Your task to perform on an android device: create a new album in the google photos Image 0: 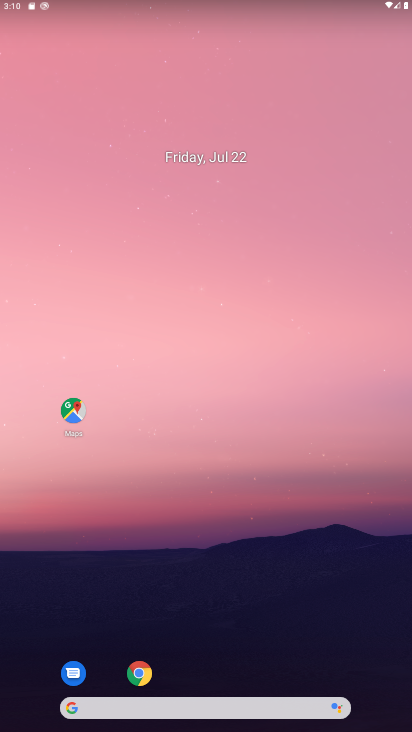
Step 0: drag from (203, 660) to (324, 142)
Your task to perform on an android device: create a new album in the google photos Image 1: 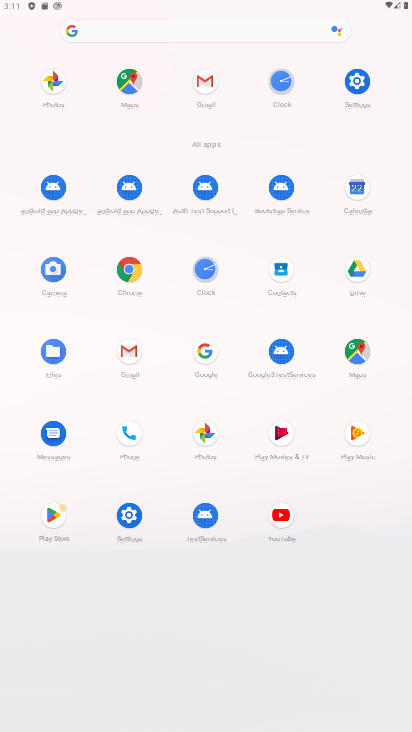
Step 1: click (209, 436)
Your task to perform on an android device: create a new album in the google photos Image 2: 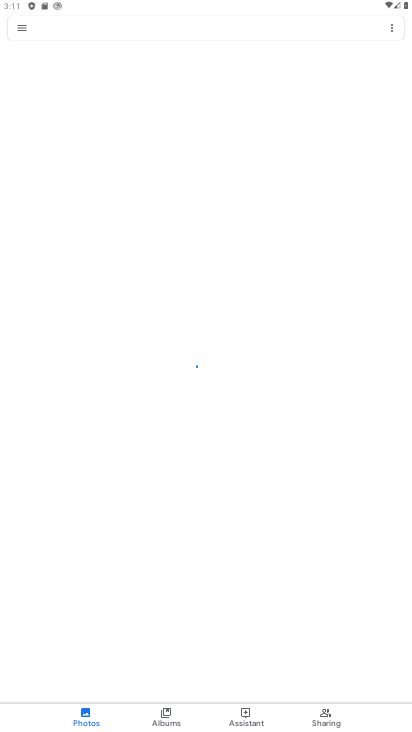
Step 2: drag from (192, 663) to (223, 430)
Your task to perform on an android device: create a new album in the google photos Image 3: 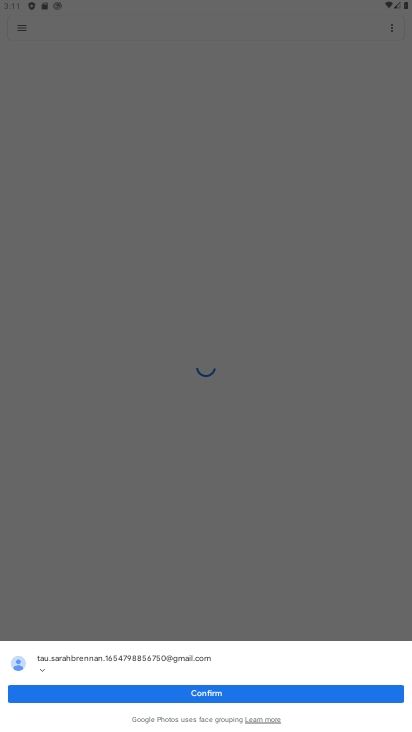
Step 3: click (168, 718)
Your task to perform on an android device: create a new album in the google photos Image 4: 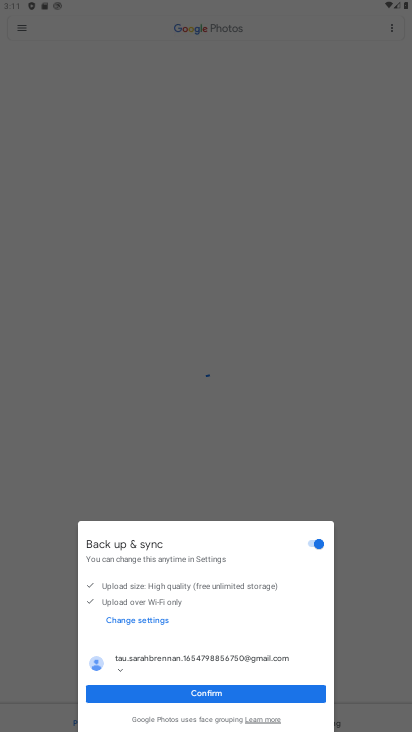
Step 4: click (184, 687)
Your task to perform on an android device: create a new album in the google photos Image 5: 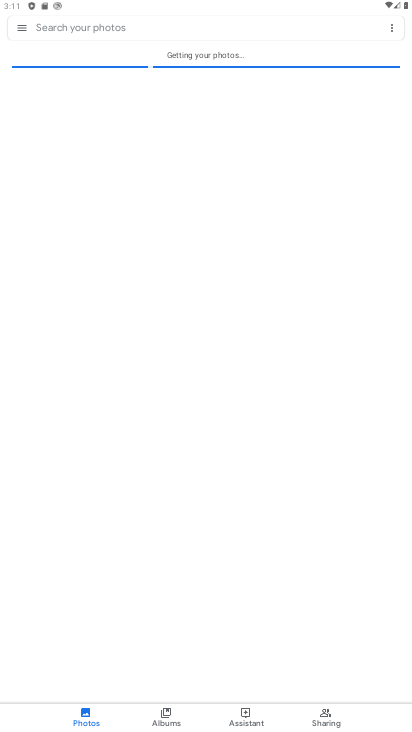
Step 5: click (164, 718)
Your task to perform on an android device: create a new album in the google photos Image 6: 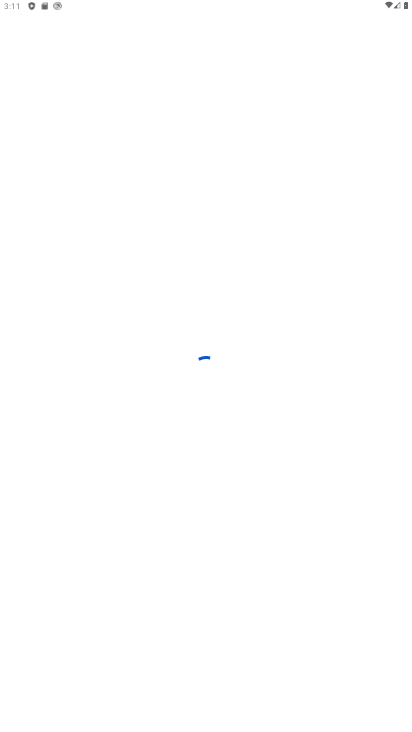
Step 6: task complete